Your task to perform on an android device: What is the news today? Image 0: 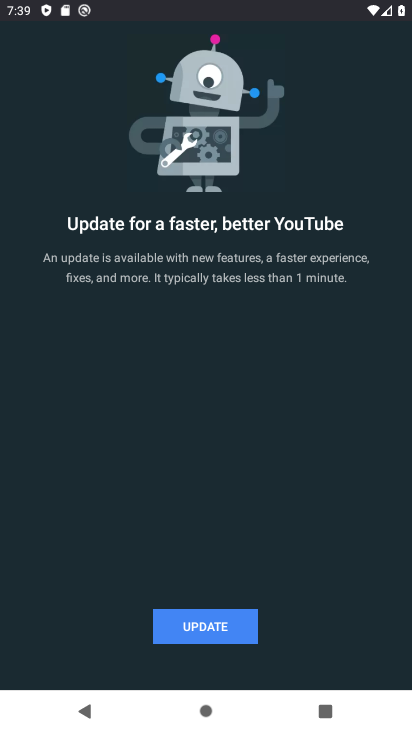
Step 0: press home button
Your task to perform on an android device: What is the news today? Image 1: 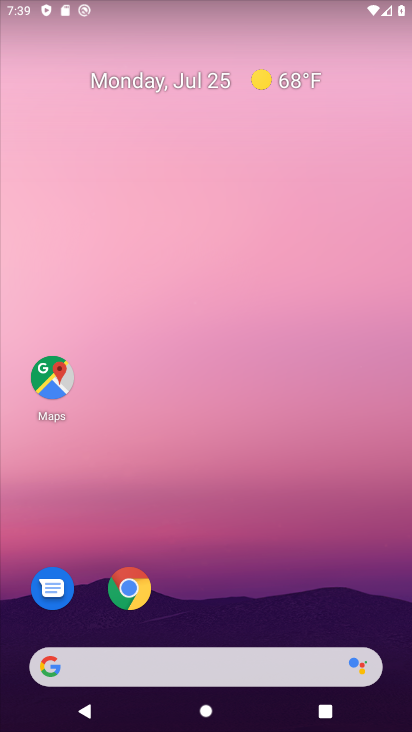
Step 1: task complete